Your task to perform on an android device: install app "Messages" Image 0: 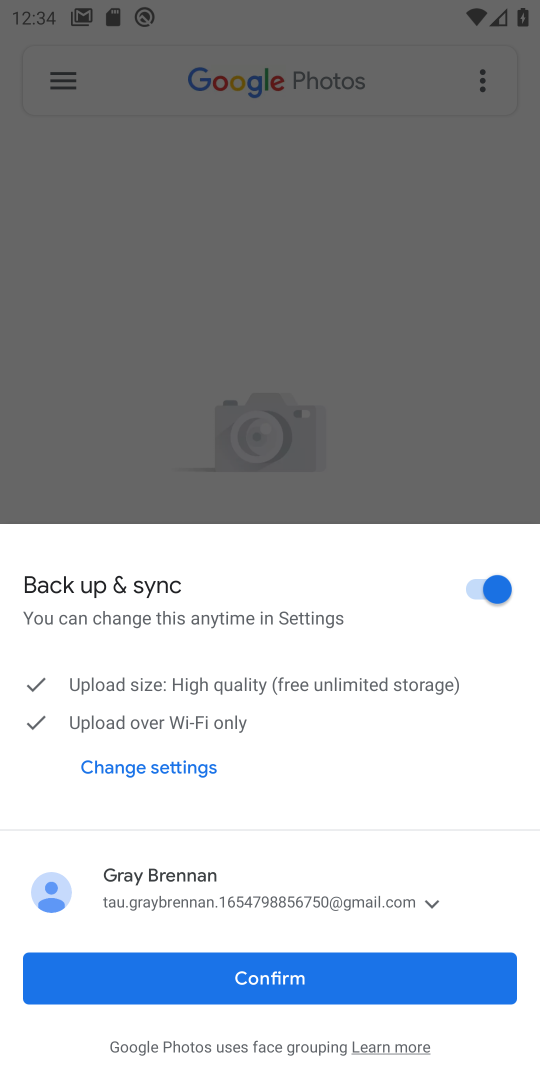
Step 0: press back button
Your task to perform on an android device: install app "Messages" Image 1: 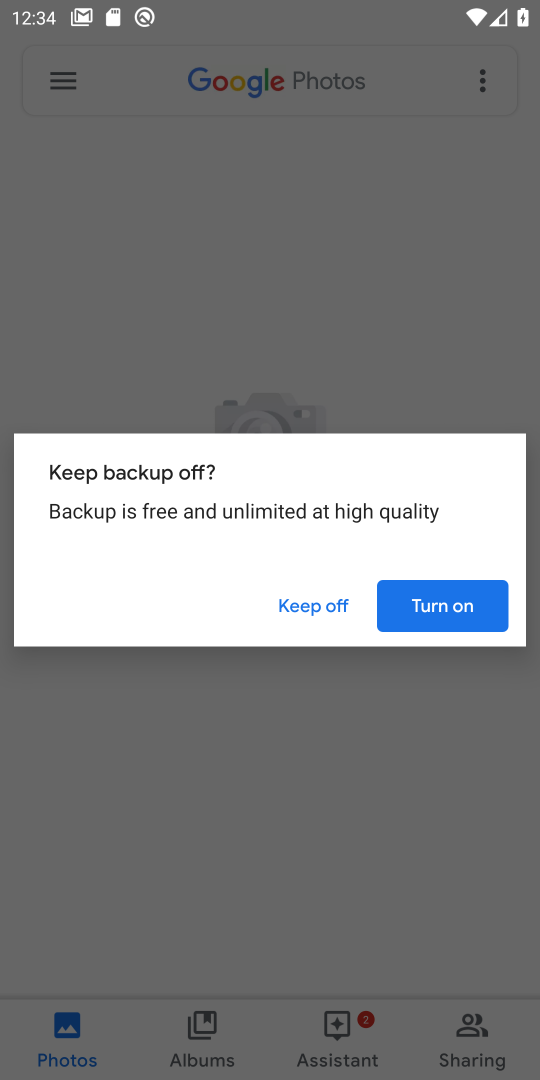
Step 1: press home button
Your task to perform on an android device: install app "Messages" Image 2: 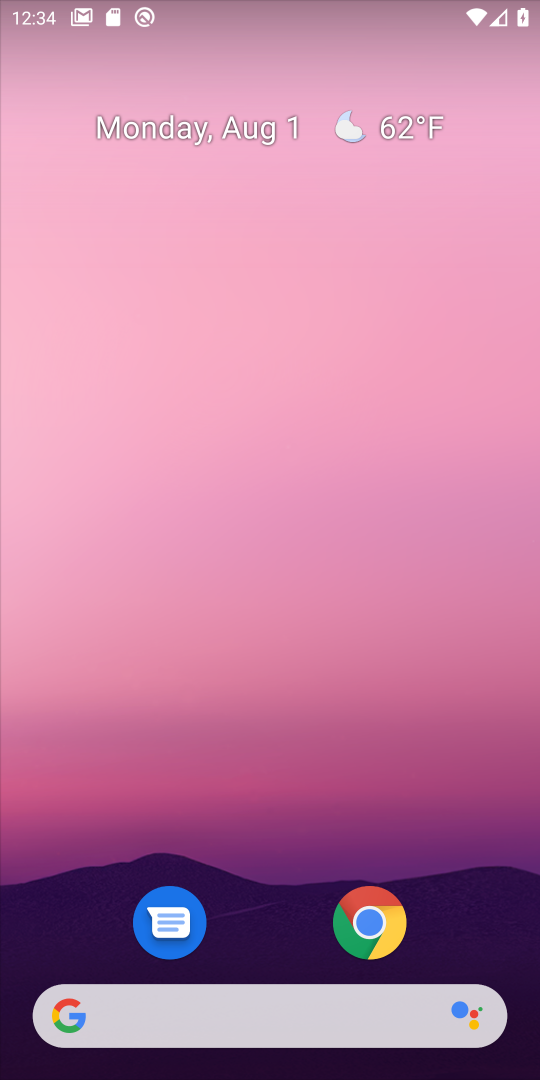
Step 2: drag from (262, 884) to (239, 138)
Your task to perform on an android device: install app "Messages" Image 3: 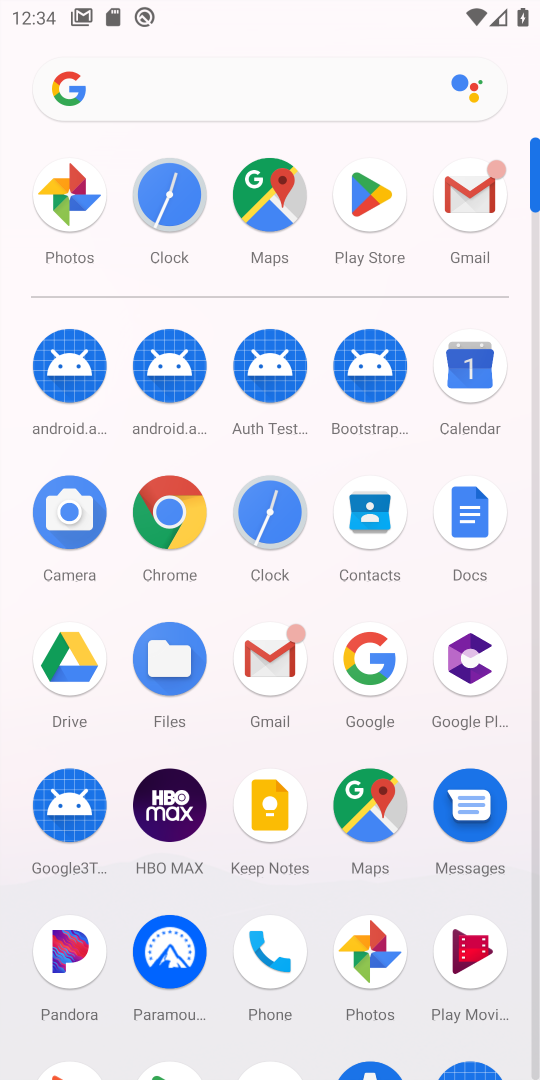
Step 3: click (380, 213)
Your task to perform on an android device: install app "Messages" Image 4: 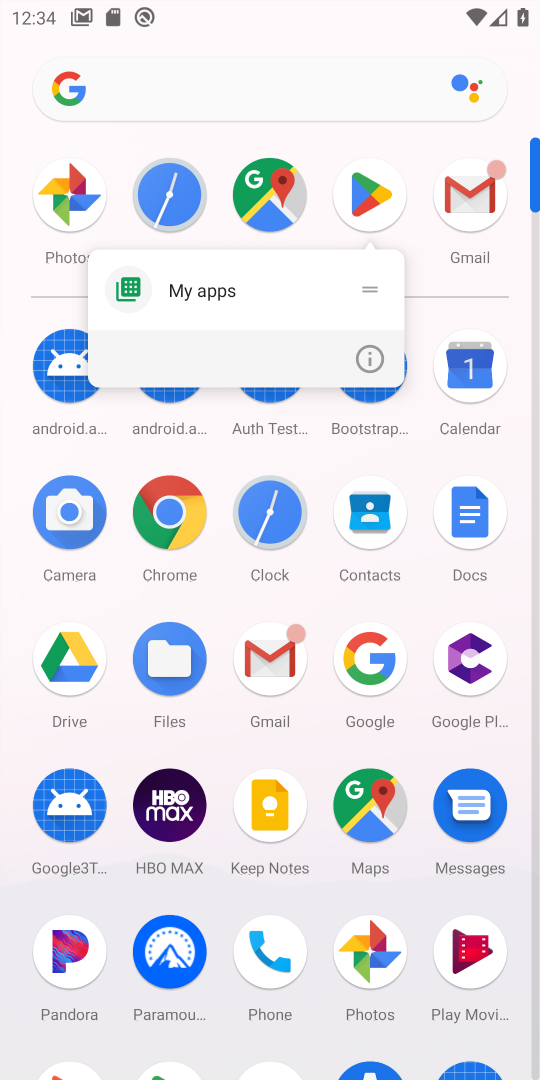
Step 4: click (390, 211)
Your task to perform on an android device: install app "Messages" Image 5: 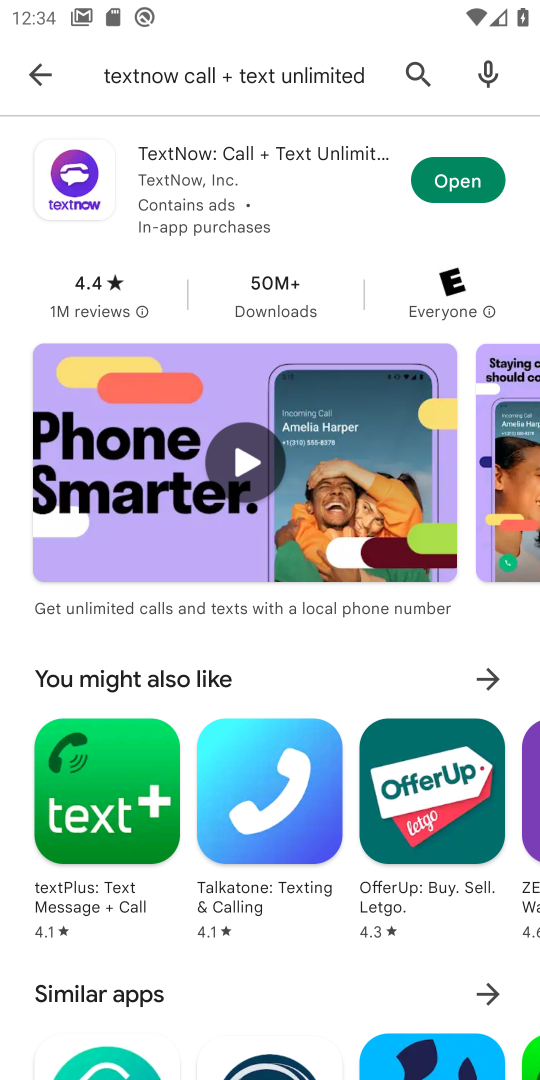
Step 5: click (411, 78)
Your task to perform on an android device: install app "Messages" Image 6: 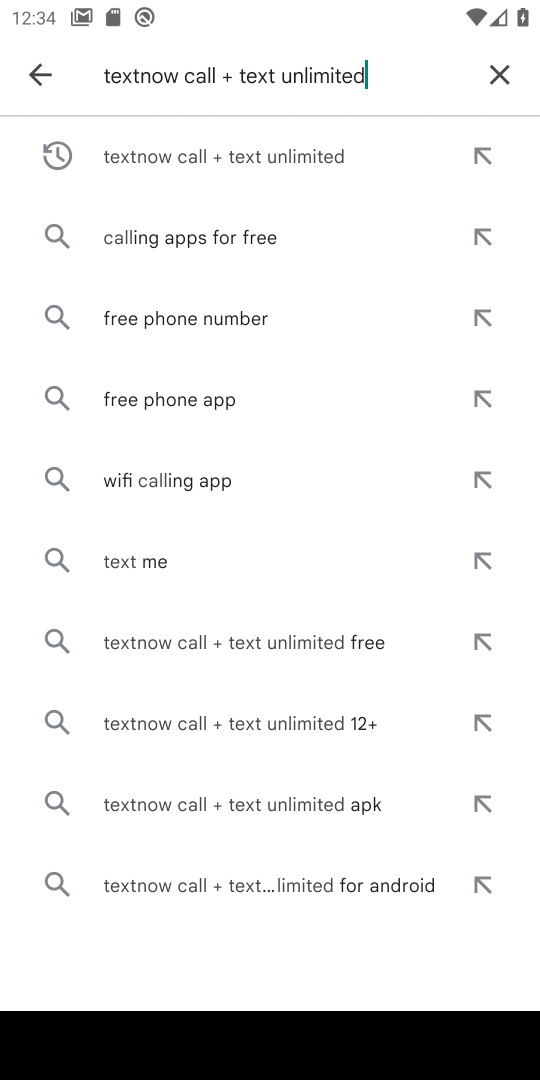
Step 6: click (493, 78)
Your task to perform on an android device: install app "Messages" Image 7: 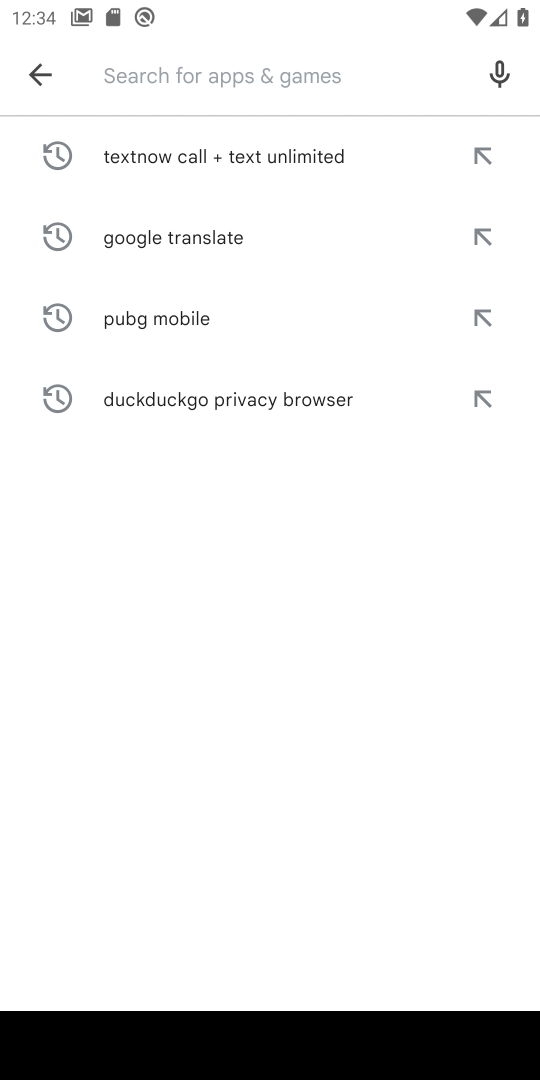
Step 7: type "Messages"
Your task to perform on an android device: install app "Messages" Image 8: 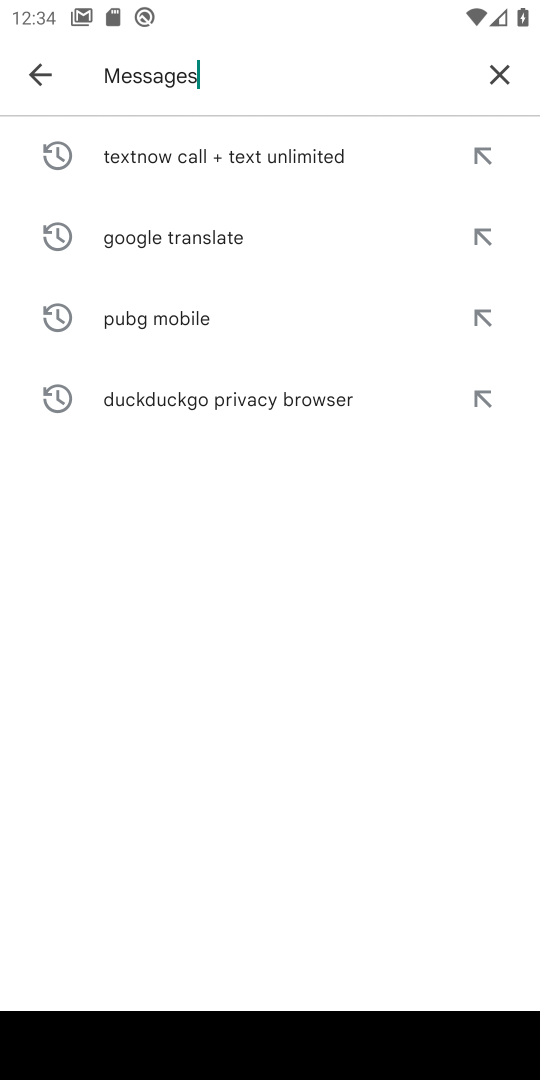
Step 8: type ""
Your task to perform on an android device: install app "Messages" Image 9: 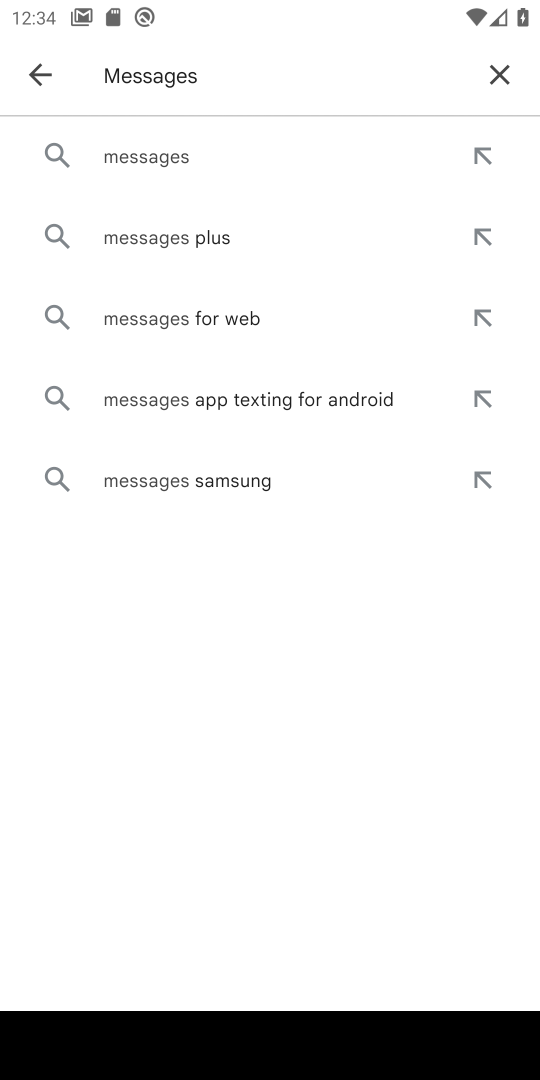
Step 9: click (249, 146)
Your task to perform on an android device: install app "Messages" Image 10: 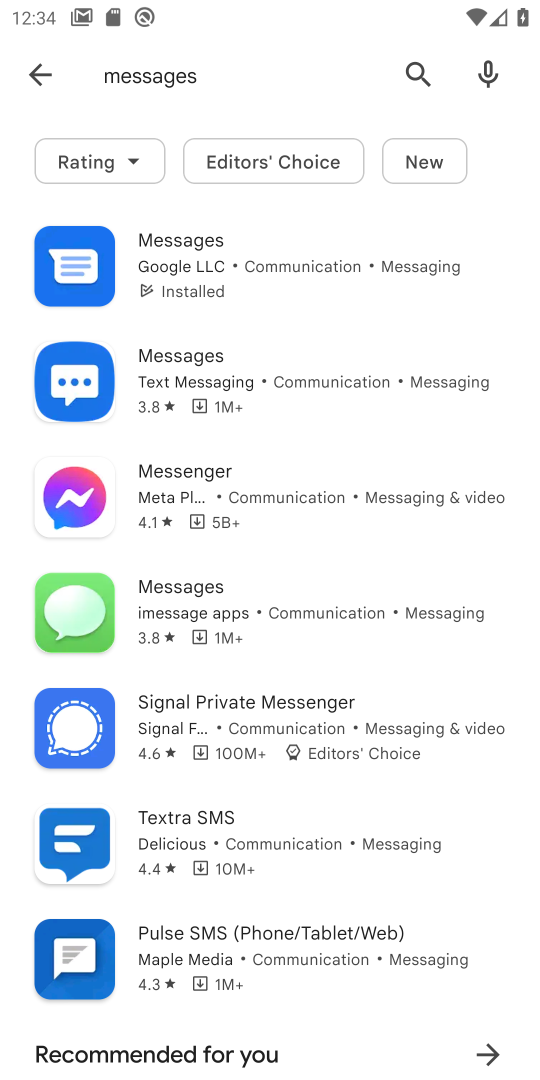
Step 10: click (315, 243)
Your task to perform on an android device: install app "Messages" Image 11: 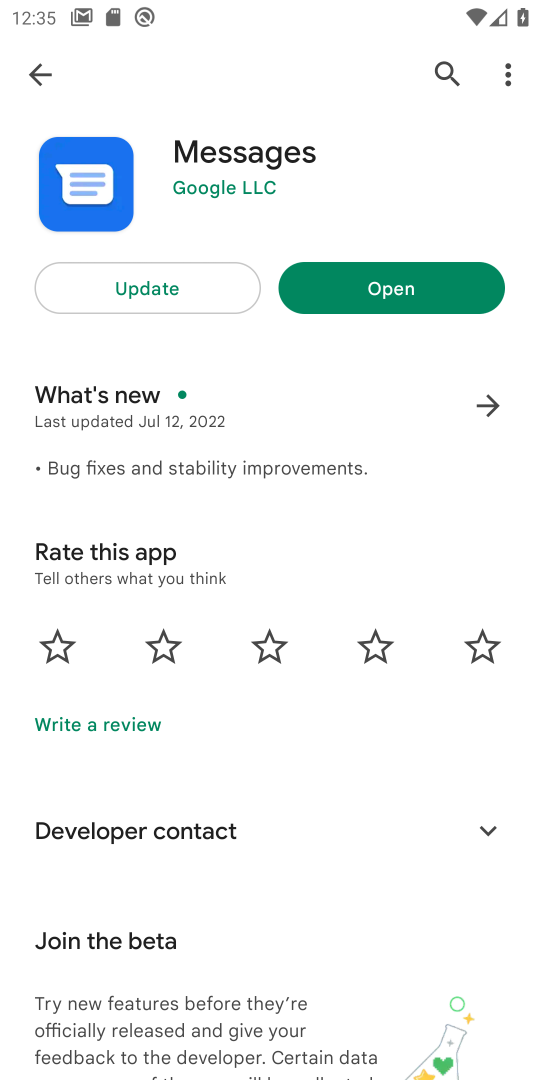
Step 11: task complete